Your task to perform on an android device: turn on airplane mode Image 0: 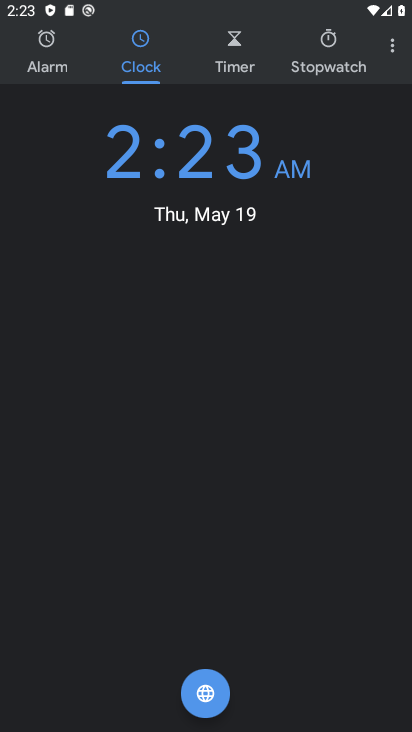
Step 0: press home button
Your task to perform on an android device: turn on airplane mode Image 1: 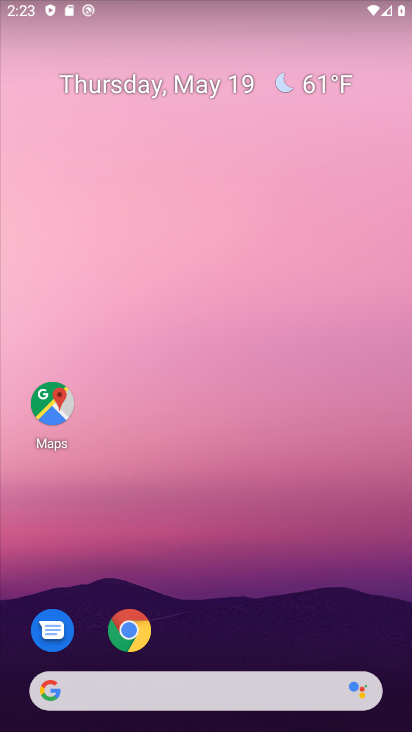
Step 1: drag from (261, 587) to (192, 78)
Your task to perform on an android device: turn on airplane mode Image 2: 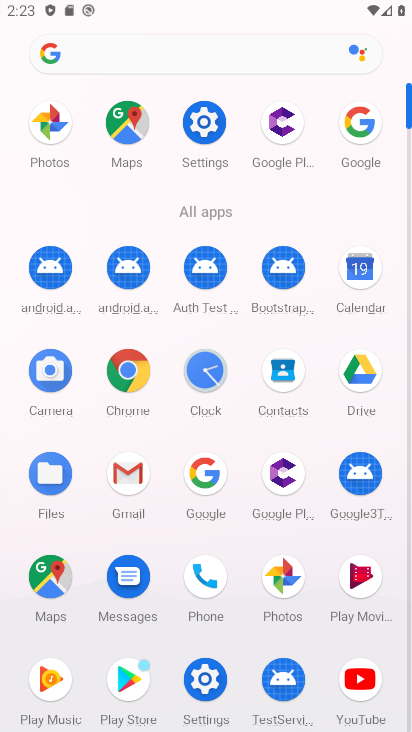
Step 2: click (210, 134)
Your task to perform on an android device: turn on airplane mode Image 3: 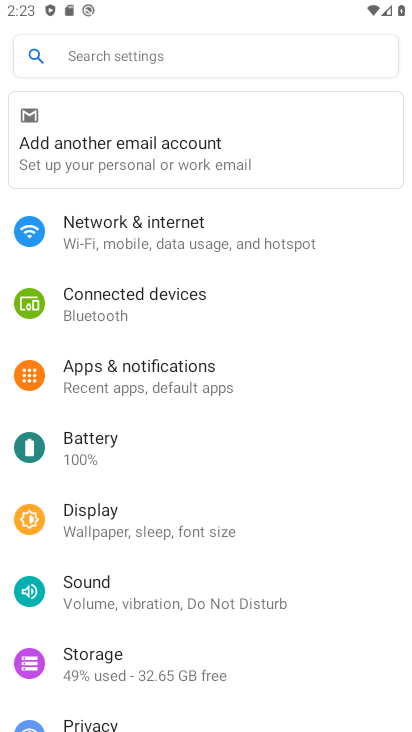
Step 3: click (210, 231)
Your task to perform on an android device: turn on airplane mode Image 4: 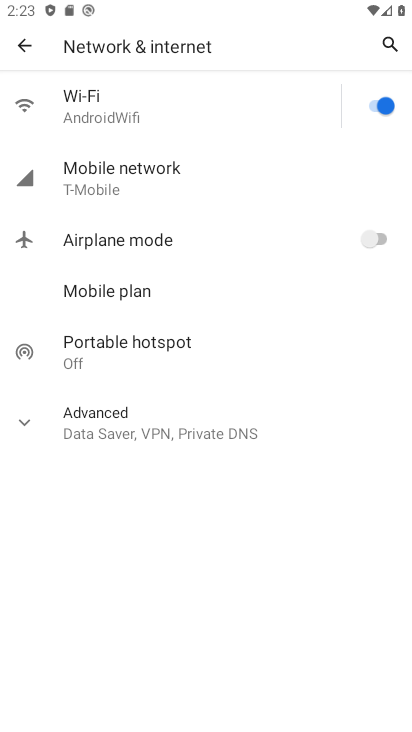
Step 4: click (368, 233)
Your task to perform on an android device: turn on airplane mode Image 5: 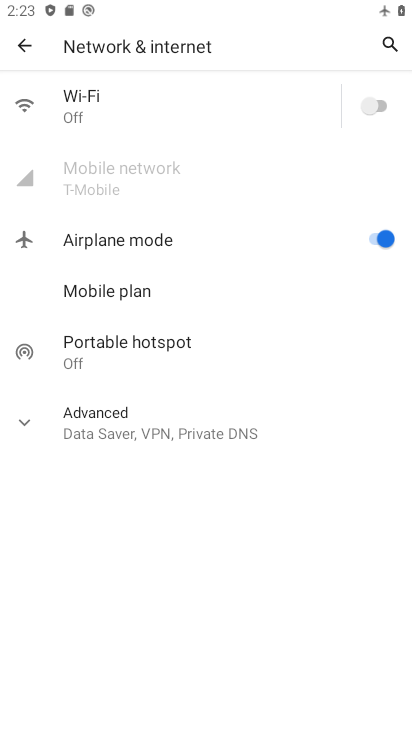
Step 5: task complete